Your task to perform on an android device: toggle data saver in the chrome app Image 0: 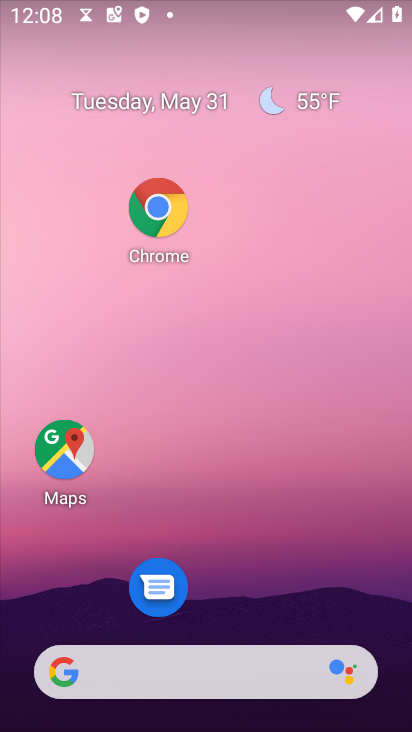
Step 0: drag from (240, 612) to (214, 229)
Your task to perform on an android device: toggle data saver in the chrome app Image 1: 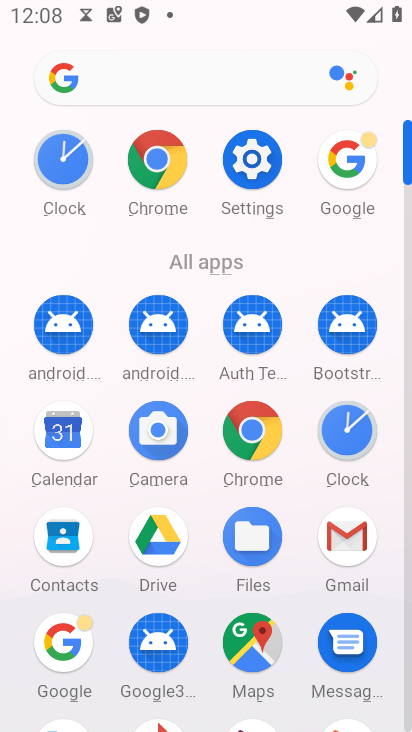
Step 1: click (164, 157)
Your task to perform on an android device: toggle data saver in the chrome app Image 2: 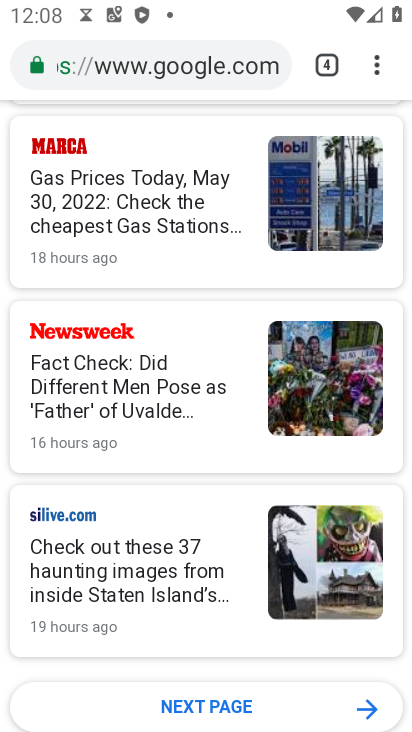
Step 2: click (379, 63)
Your task to perform on an android device: toggle data saver in the chrome app Image 3: 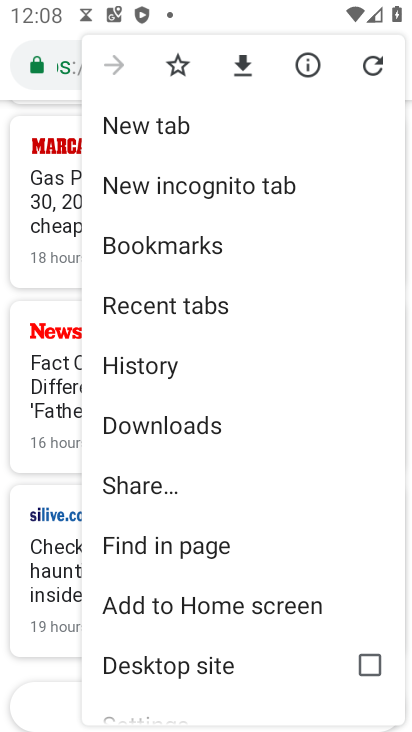
Step 3: drag from (201, 704) to (193, 547)
Your task to perform on an android device: toggle data saver in the chrome app Image 4: 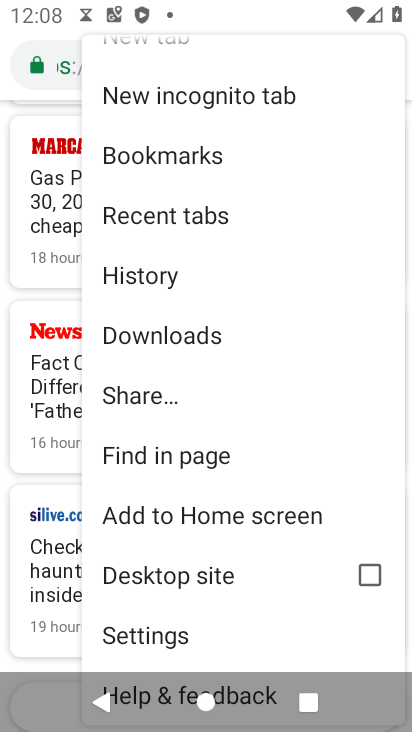
Step 4: click (152, 636)
Your task to perform on an android device: toggle data saver in the chrome app Image 5: 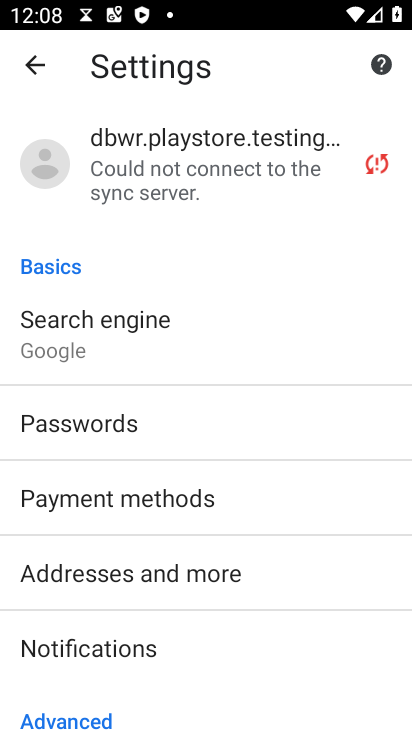
Step 5: drag from (192, 659) to (185, 192)
Your task to perform on an android device: toggle data saver in the chrome app Image 6: 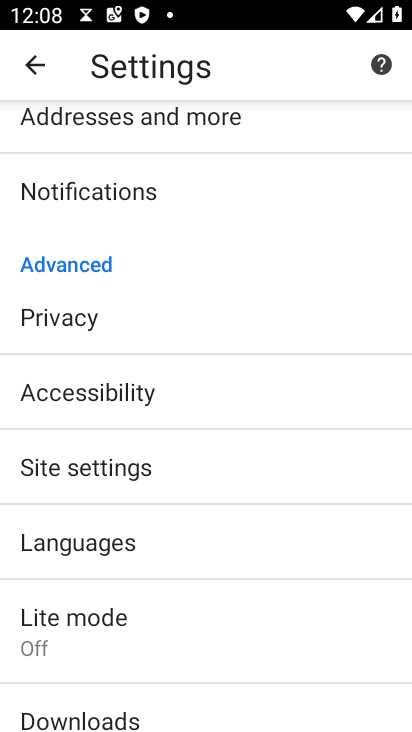
Step 6: click (76, 611)
Your task to perform on an android device: toggle data saver in the chrome app Image 7: 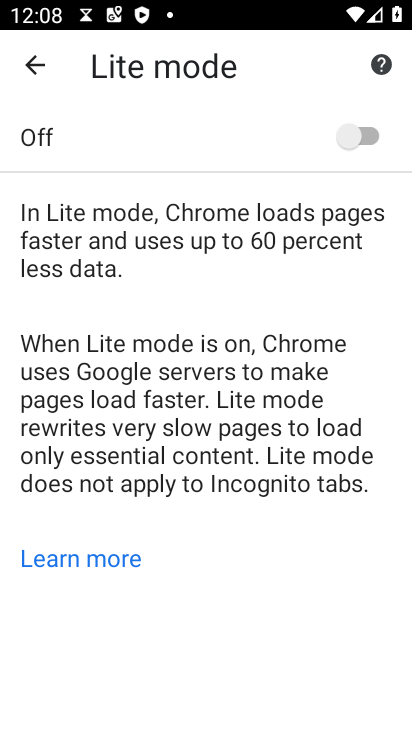
Step 7: click (356, 133)
Your task to perform on an android device: toggle data saver in the chrome app Image 8: 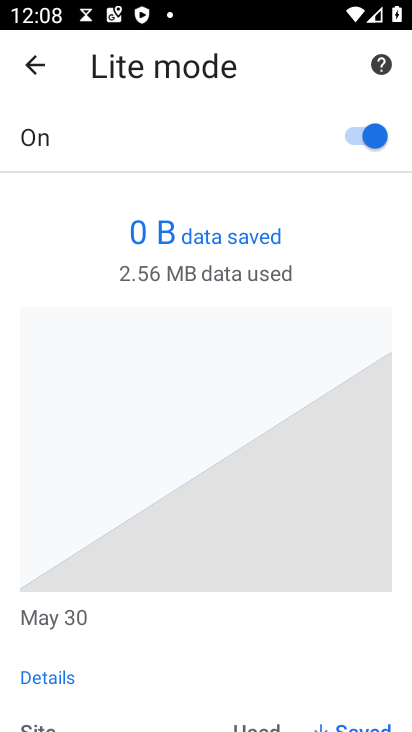
Step 8: task complete